Your task to perform on an android device: turn vacation reply on in the gmail app Image 0: 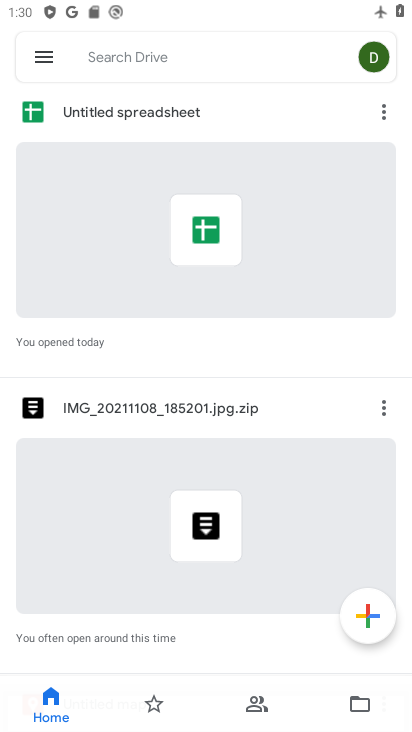
Step 0: press home button
Your task to perform on an android device: turn vacation reply on in the gmail app Image 1: 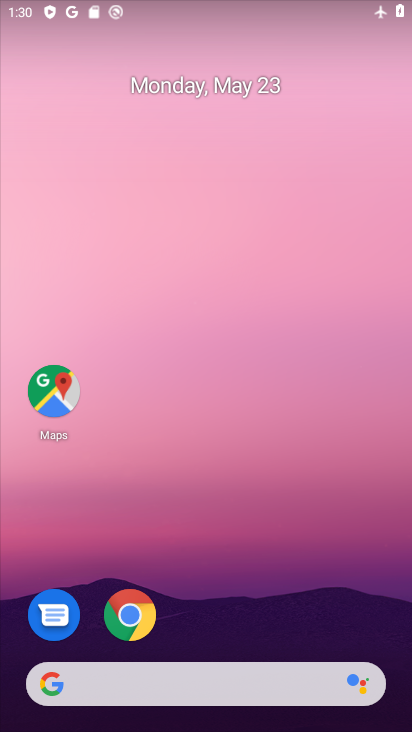
Step 1: drag from (198, 655) to (192, 54)
Your task to perform on an android device: turn vacation reply on in the gmail app Image 2: 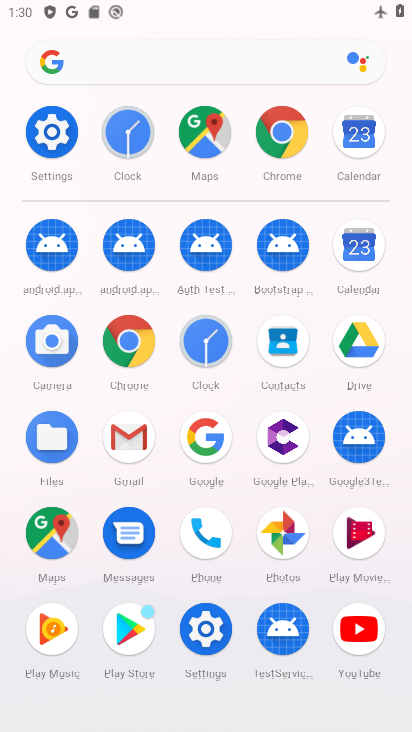
Step 2: click (146, 433)
Your task to perform on an android device: turn vacation reply on in the gmail app Image 3: 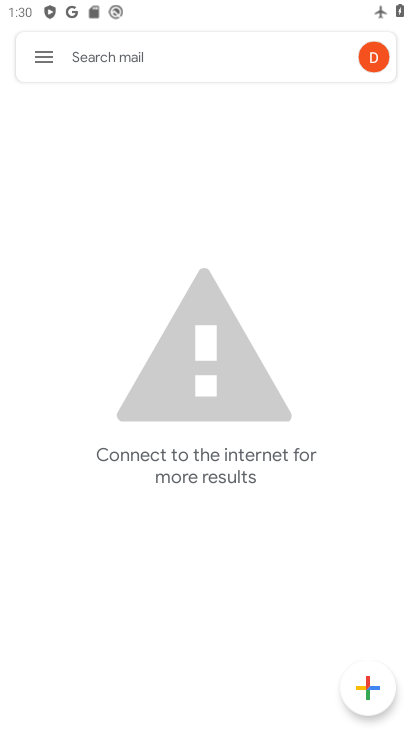
Step 3: click (37, 47)
Your task to perform on an android device: turn vacation reply on in the gmail app Image 4: 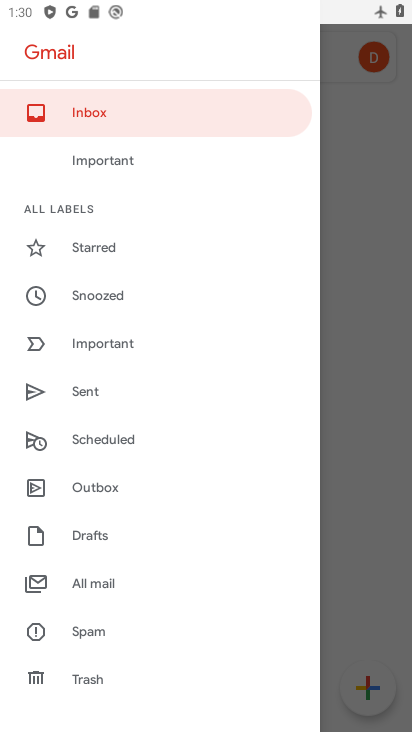
Step 4: drag from (61, 629) to (27, 225)
Your task to perform on an android device: turn vacation reply on in the gmail app Image 5: 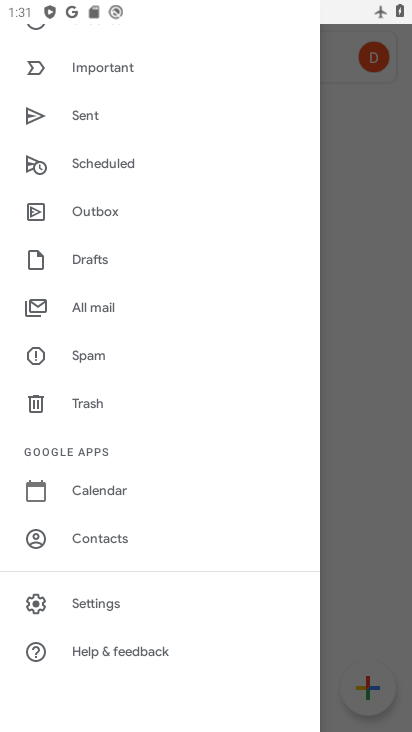
Step 5: click (80, 580)
Your task to perform on an android device: turn vacation reply on in the gmail app Image 6: 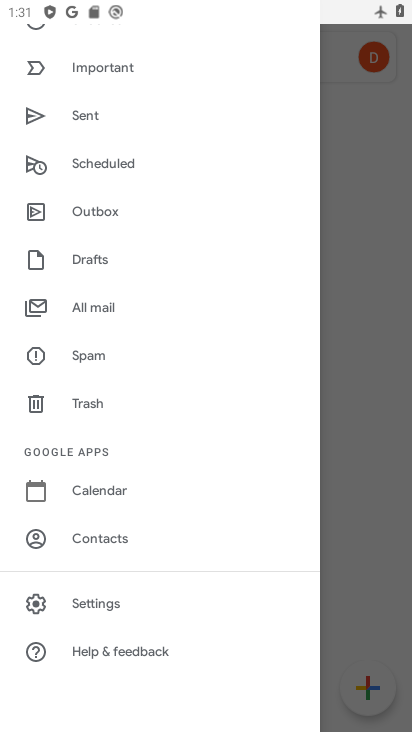
Step 6: click (82, 602)
Your task to perform on an android device: turn vacation reply on in the gmail app Image 7: 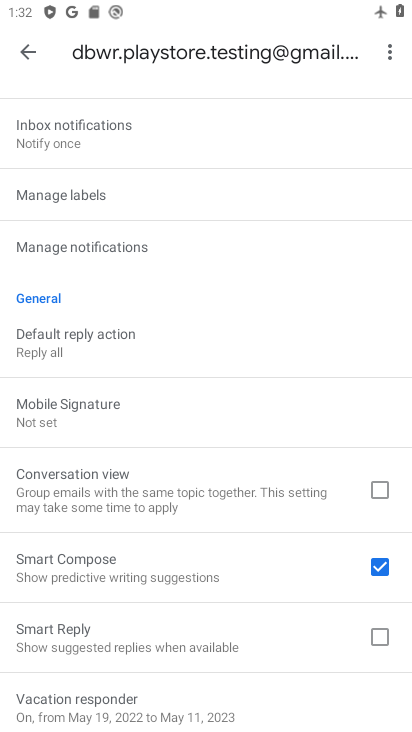
Step 7: click (194, 695)
Your task to perform on an android device: turn vacation reply on in the gmail app Image 8: 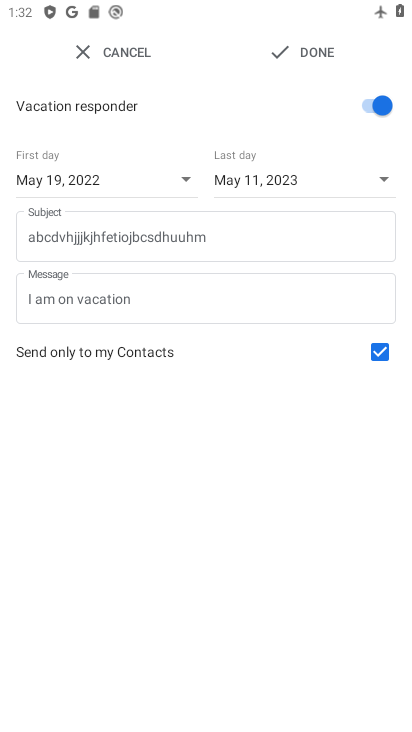
Step 8: click (312, 55)
Your task to perform on an android device: turn vacation reply on in the gmail app Image 9: 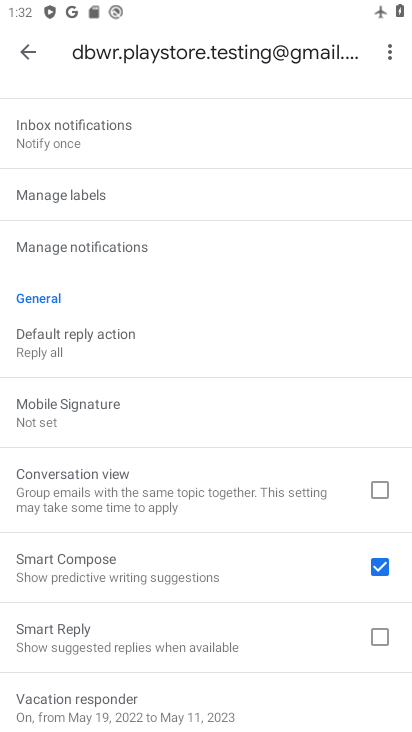
Step 9: click (239, 705)
Your task to perform on an android device: turn vacation reply on in the gmail app Image 10: 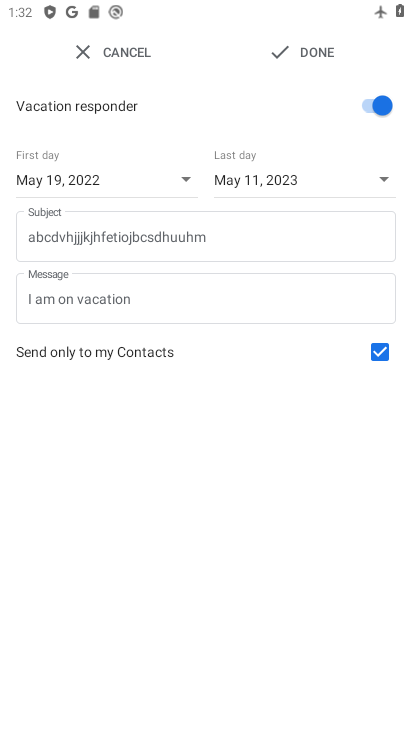
Step 10: click (321, 47)
Your task to perform on an android device: turn vacation reply on in the gmail app Image 11: 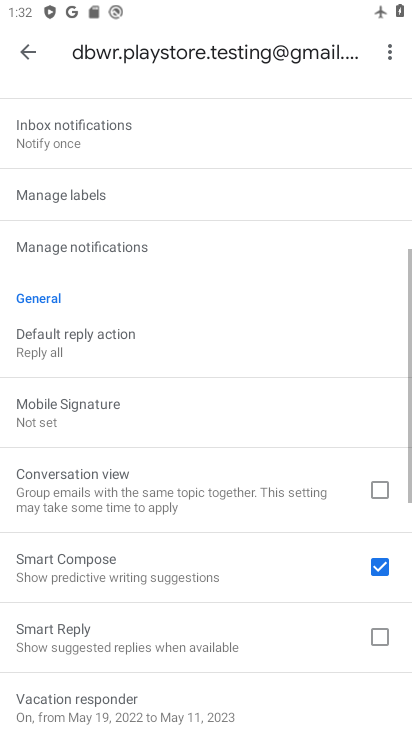
Step 11: task complete